Your task to perform on an android device: refresh tabs in the chrome app Image 0: 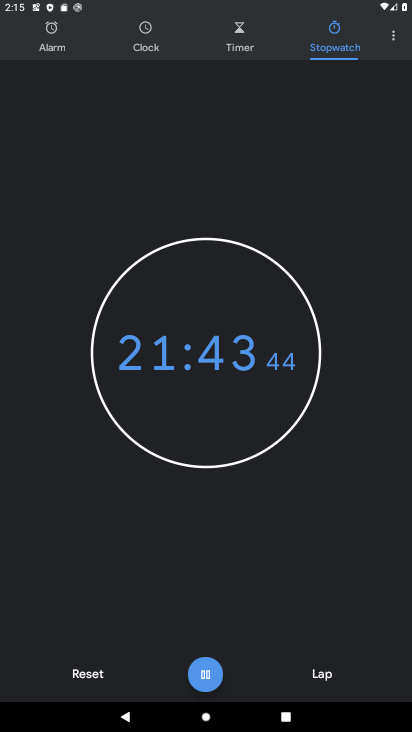
Step 0: press home button
Your task to perform on an android device: refresh tabs in the chrome app Image 1: 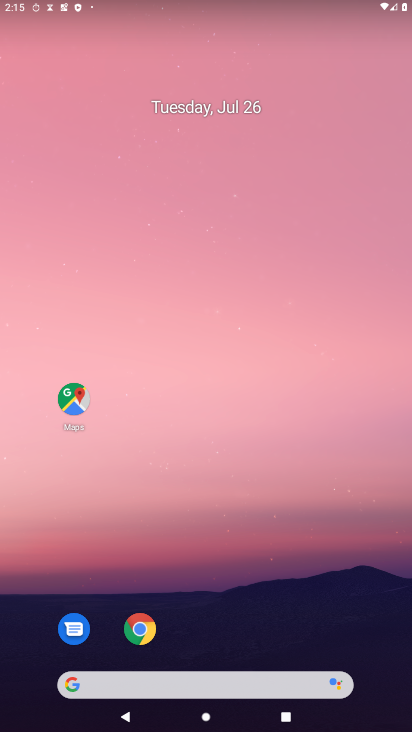
Step 1: drag from (345, 575) to (363, 102)
Your task to perform on an android device: refresh tabs in the chrome app Image 2: 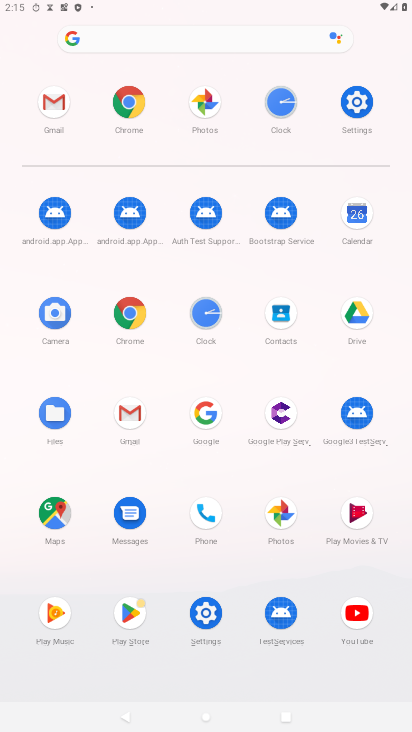
Step 2: click (134, 303)
Your task to perform on an android device: refresh tabs in the chrome app Image 3: 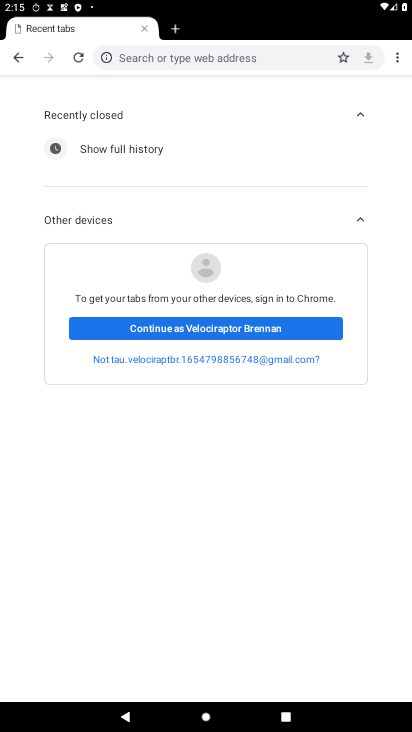
Step 3: click (79, 54)
Your task to perform on an android device: refresh tabs in the chrome app Image 4: 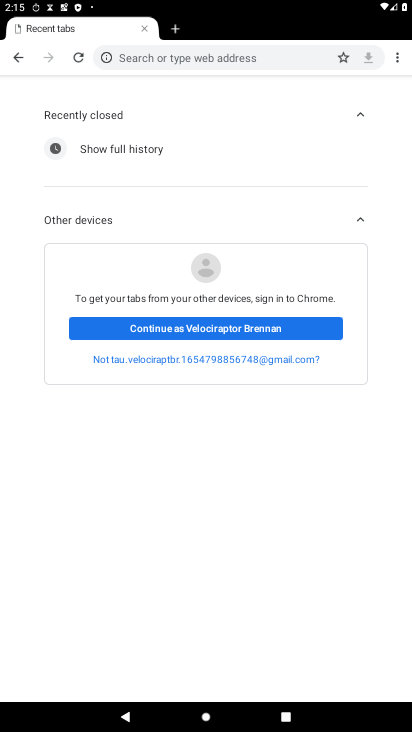
Step 4: task complete